Your task to perform on an android device: clear all cookies in the chrome app Image 0: 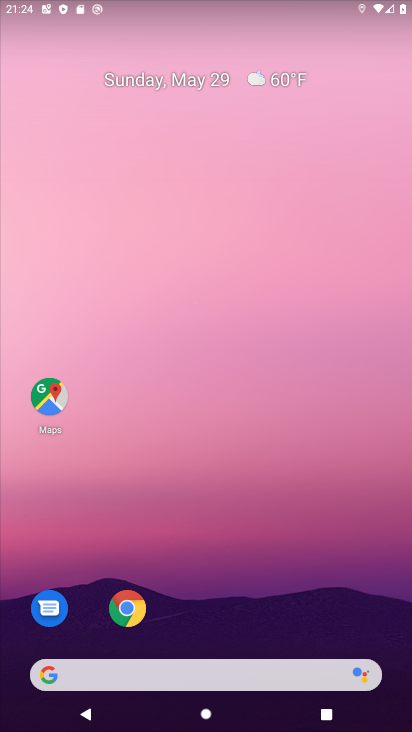
Step 0: drag from (378, 607) to (372, 222)
Your task to perform on an android device: clear all cookies in the chrome app Image 1: 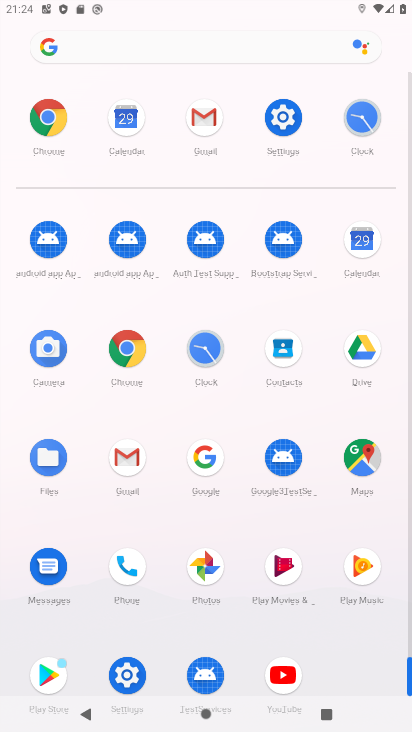
Step 1: click (130, 344)
Your task to perform on an android device: clear all cookies in the chrome app Image 2: 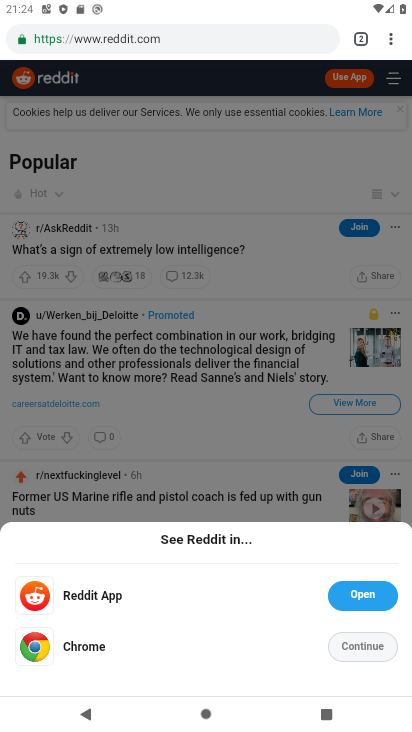
Step 2: click (396, 47)
Your task to perform on an android device: clear all cookies in the chrome app Image 3: 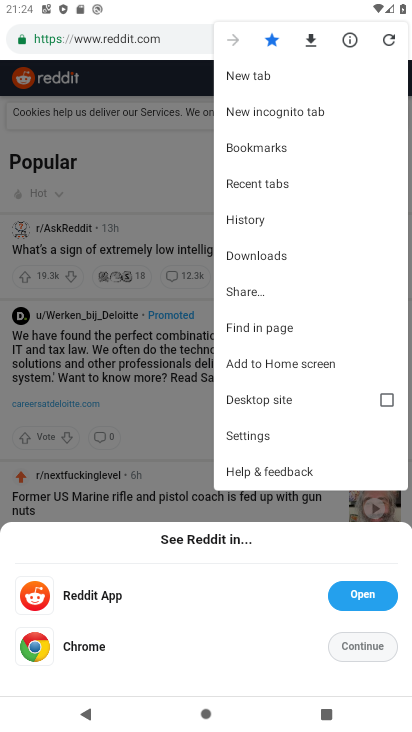
Step 3: click (275, 434)
Your task to perform on an android device: clear all cookies in the chrome app Image 4: 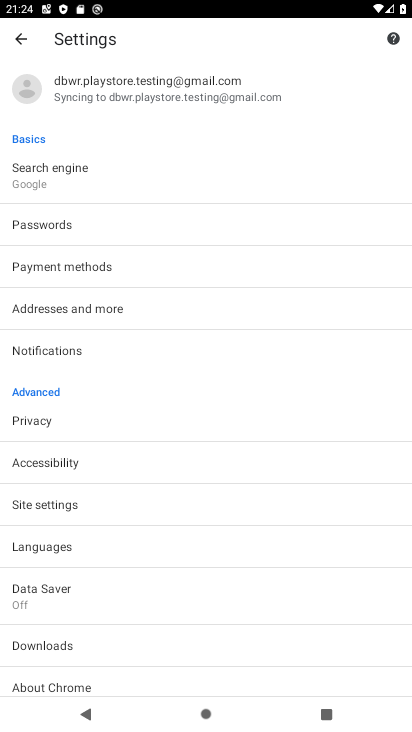
Step 4: click (209, 499)
Your task to perform on an android device: clear all cookies in the chrome app Image 5: 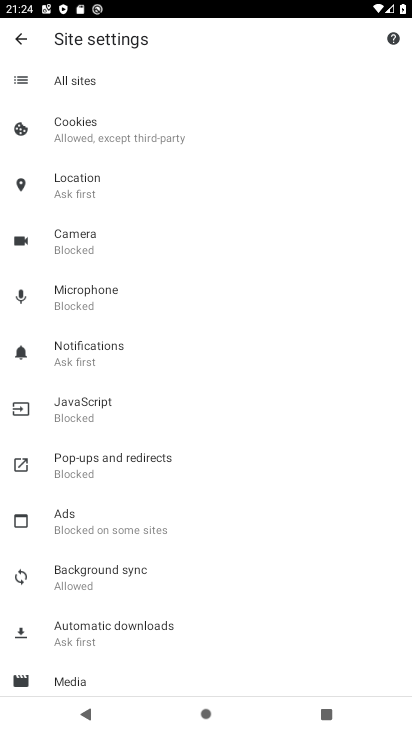
Step 5: click (151, 135)
Your task to perform on an android device: clear all cookies in the chrome app Image 6: 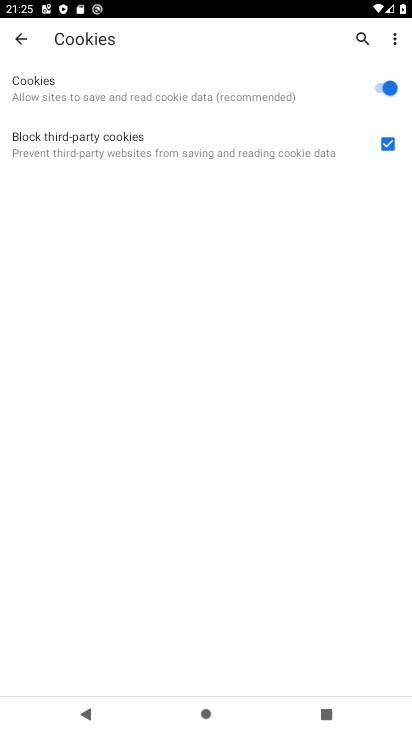
Step 6: click (377, 90)
Your task to perform on an android device: clear all cookies in the chrome app Image 7: 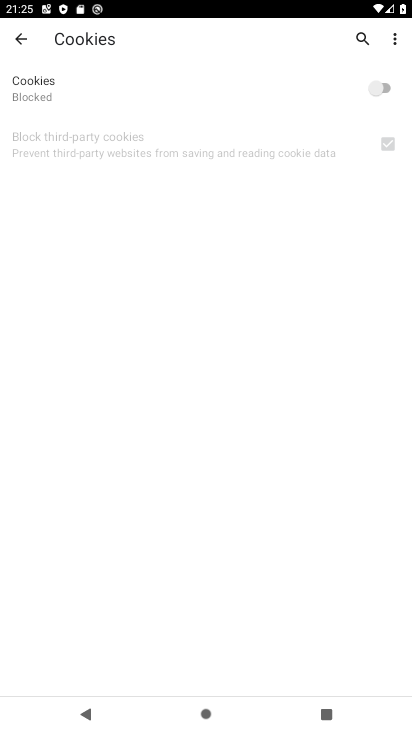
Step 7: task complete